Your task to perform on an android device: stop showing notifications on the lock screen Image 0: 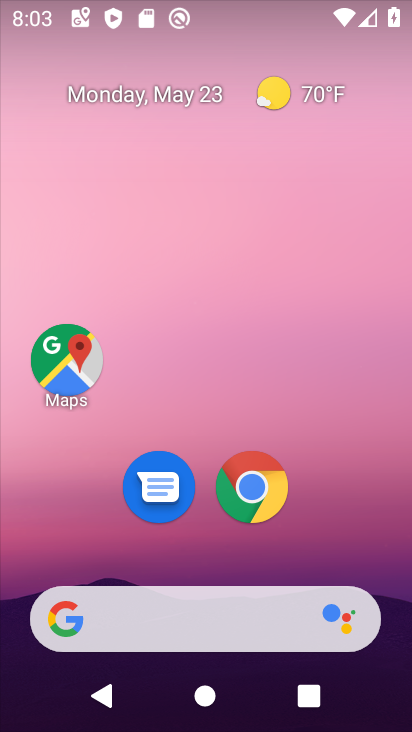
Step 0: drag from (163, 580) to (243, 97)
Your task to perform on an android device: stop showing notifications on the lock screen Image 1: 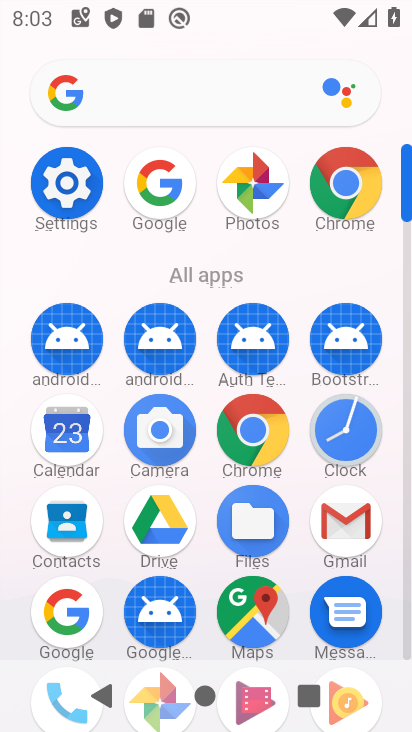
Step 1: click (59, 191)
Your task to perform on an android device: stop showing notifications on the lock screen Image 2: 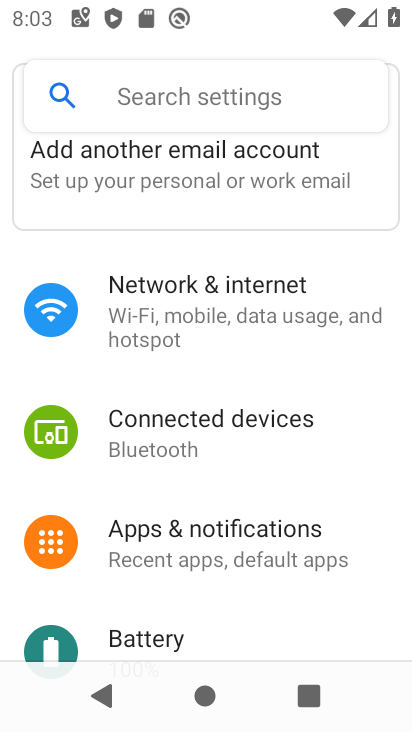
Step 2: drag from (163, 508) to (219, 142)
Your task to perform on an android device: stop showing notifications on the lock screen Image 3: 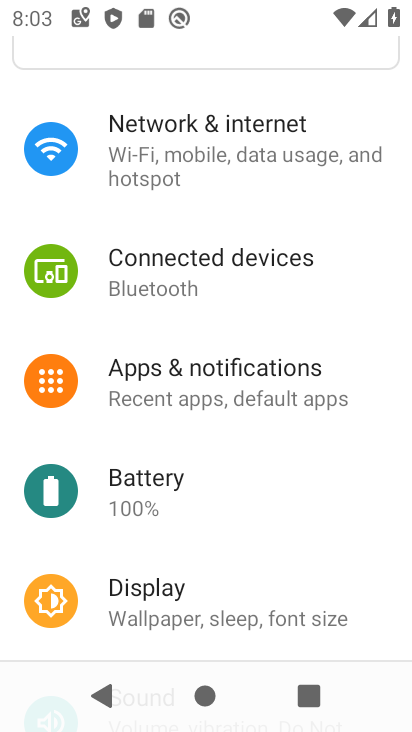
Step 3: drag from (163, 572) to (147, 640)
Your task to perform on an android device: stop showing notifications on the lock screen Image 4: 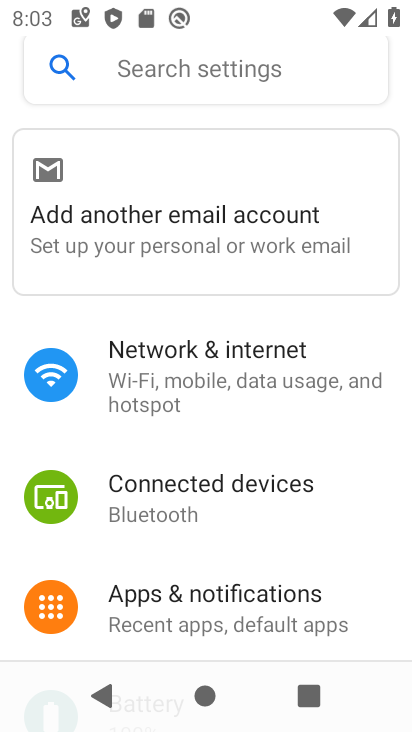
Step 4: drag from (152, 617) to (235, 82)
Your task to perform on an android device: stop showing notifications on the lock screen Image 5: 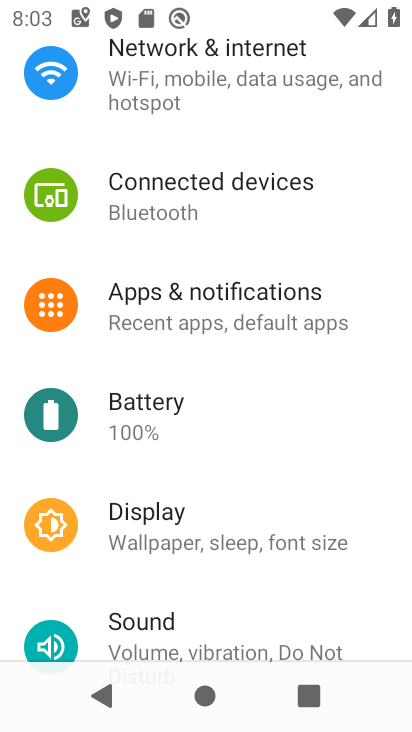
Step 5: drag from (166, 630) to (185, 340)
Your task to perform on an android device: stop showing notifications on the lock screen Image 6: 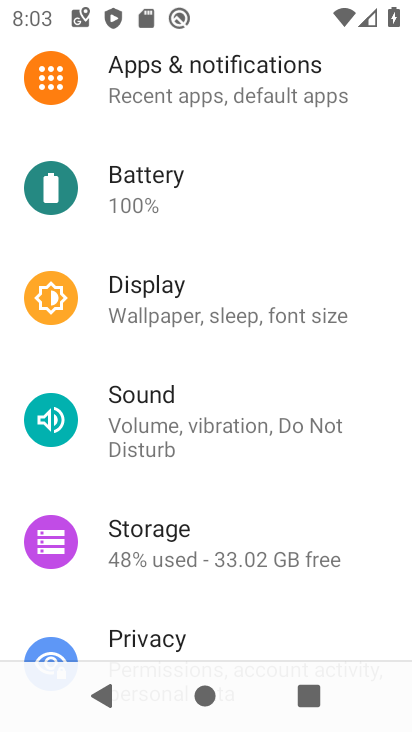
Step 6: click (151, 642)
Your task to perform on an android device: stop showing notifications on the lock screen Image 7: 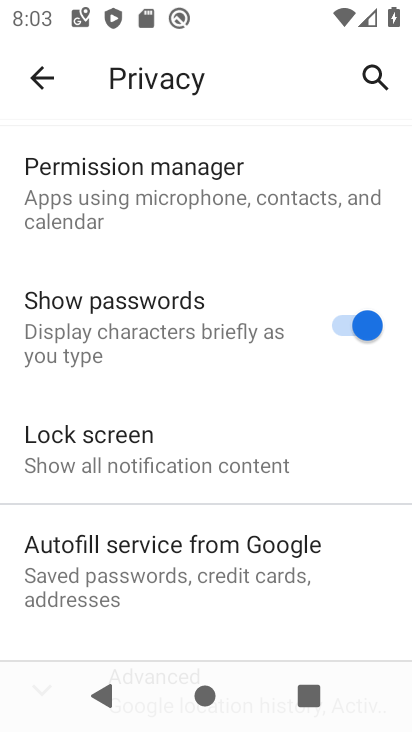
Step 7: click (158, 463)
Your task to perform on an android device: stop showing notifications on the lock screen Image 8: 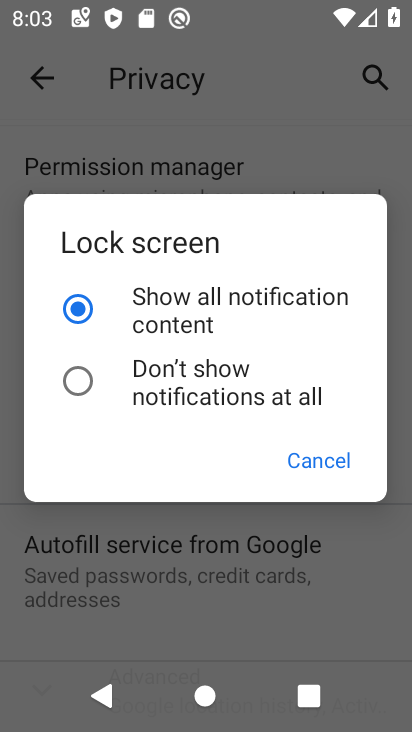
Step 8: click (190, 387)
Your task to perform on an android device: stop showing notifications on the lock screen Image 9: 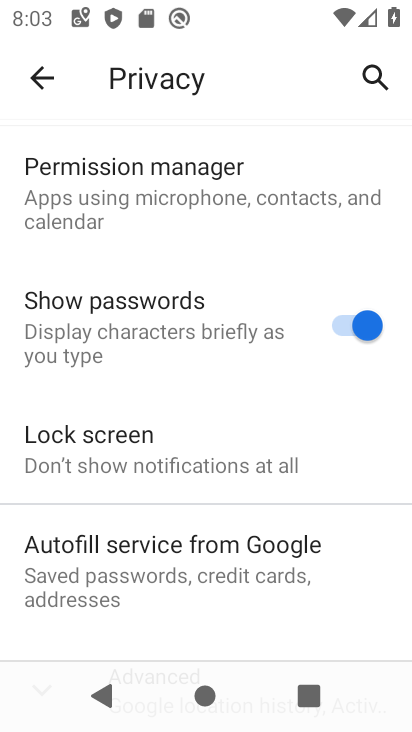
Step 9: task complete